Your task to perform on an android device: set an alarm Image 0: 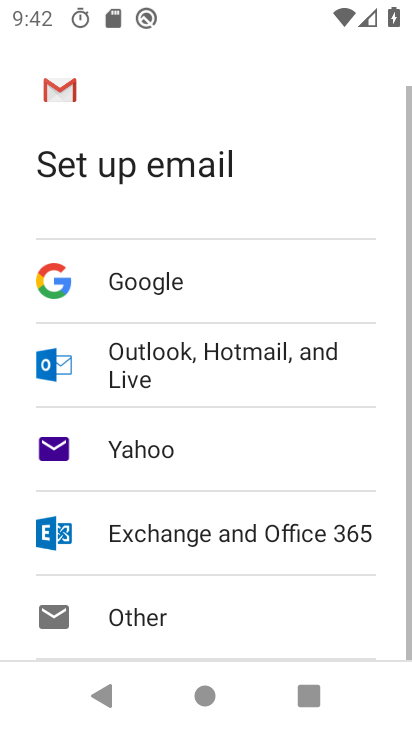
Step 0: press home button
Your task to perform on an android device: set an alarm Image 1: 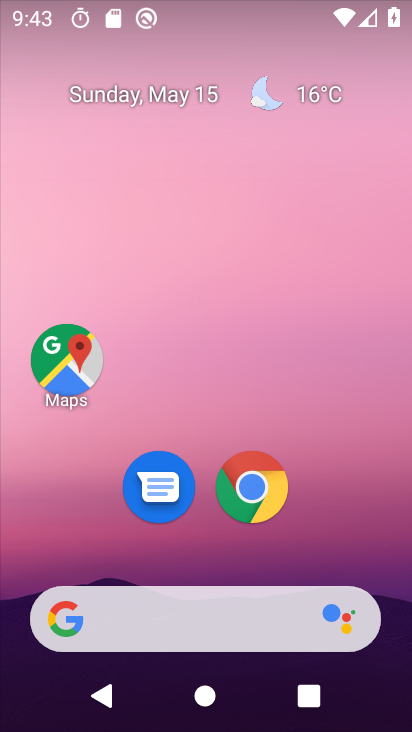
Step 1: drag from (362, 528) to (382, 103)
Your task to perform on an android device: set an alarm Image 2: 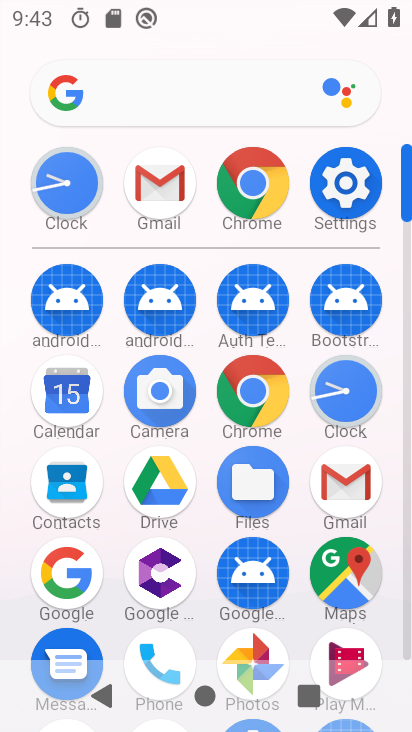
Step 2: click (337, 415)
Your task to perform on an android device: set an alarm Image 3: 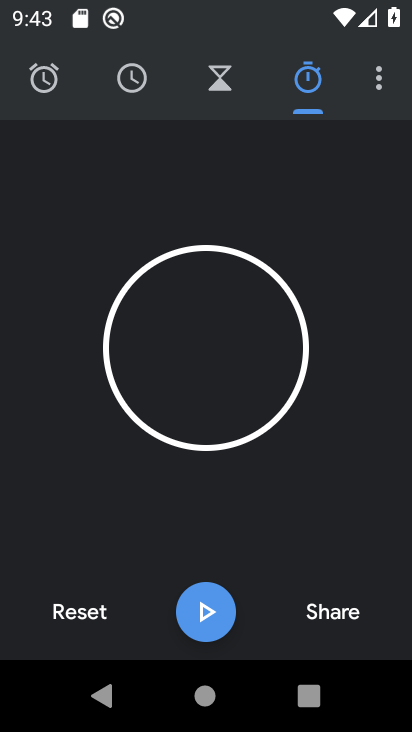
Step 3: click (31, 82)
Your task to perform on an android device: set an alarm Image 4: 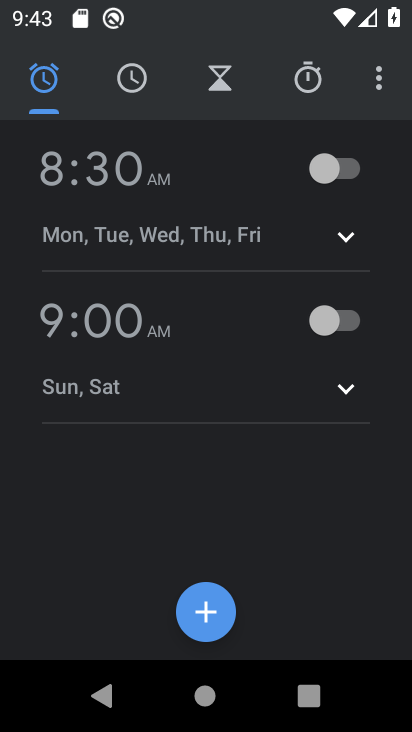
Step 4: click (215, 627)
Your task to perform on an android device: set an alarm Image 5: 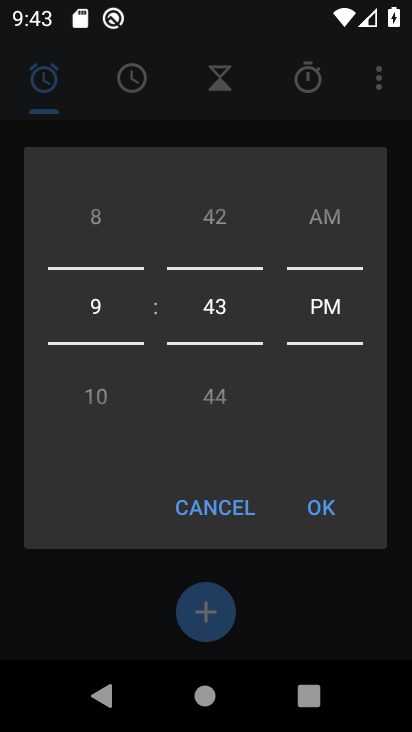
Step 5: click (338, 505)
Your task to perform on an android device: set an alarm Image 6: 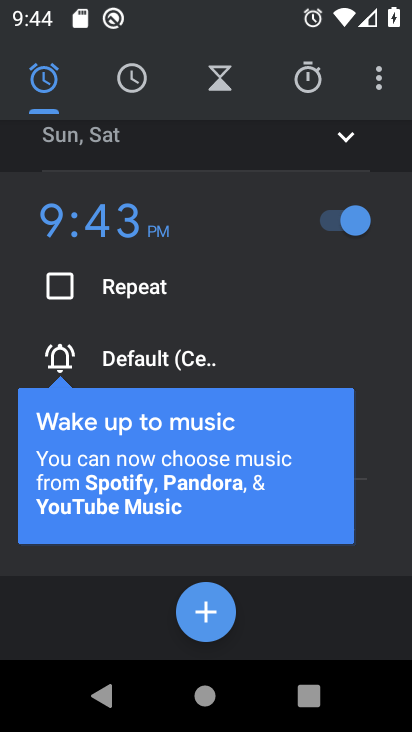
Step 6: task complete